Your task to perform on an android device: Open settings Image 0: 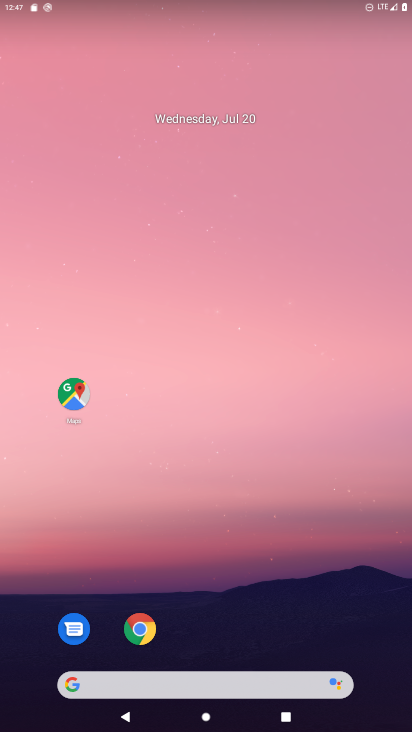
Step 0: drag from (191, 636) to (183, 219)
Your task to perform on an android device: Open settings Image 1: 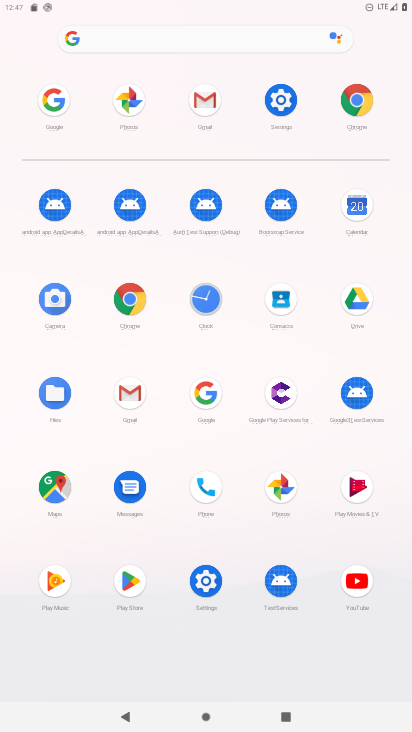
Step 1: click (277, 123)
Your task to perform on an android device: Open settings Image 2: 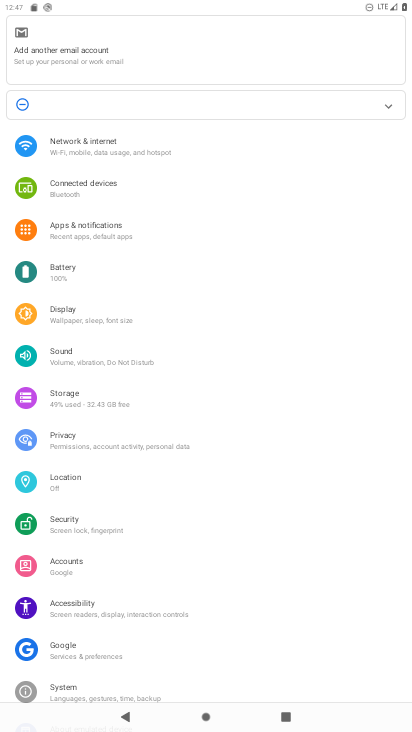
Step 2: task complete